Your task to perform on an android device: Open Amazon Image 0: 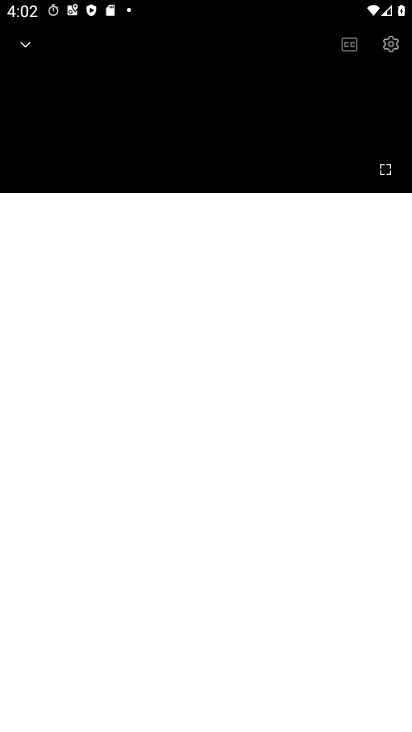
Step 0: click (128, 622)
Your task to perform on an android device: Open Amazon Image 1: 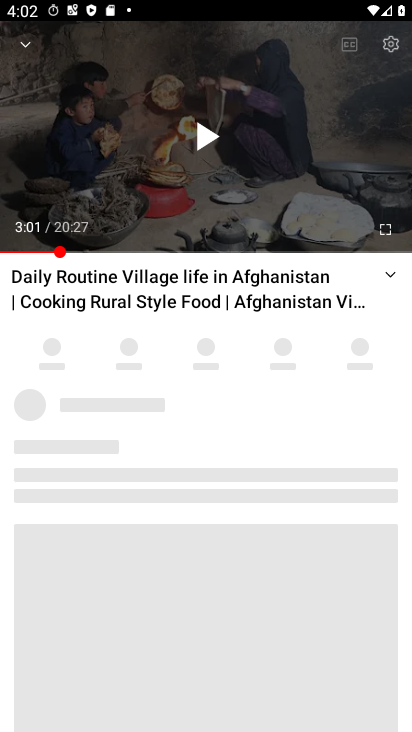
Step 1: press home button
Your task to perform on an android device: Open Amazon Image 2: 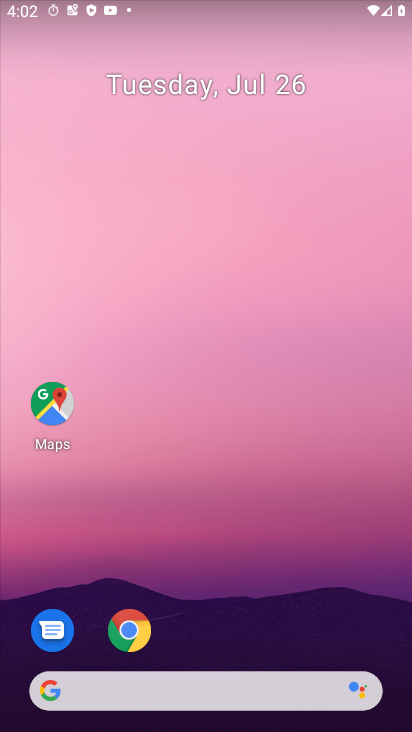
Step 2: click (137, 635)
Your task to perform on an android device: Open Amazon Image 3: 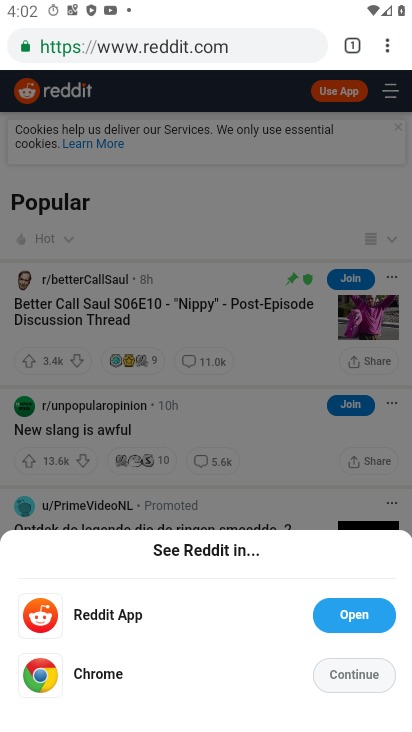
Step 3: click (351, 44)
Your task to perform on an android device: Open Amazon Image 4: 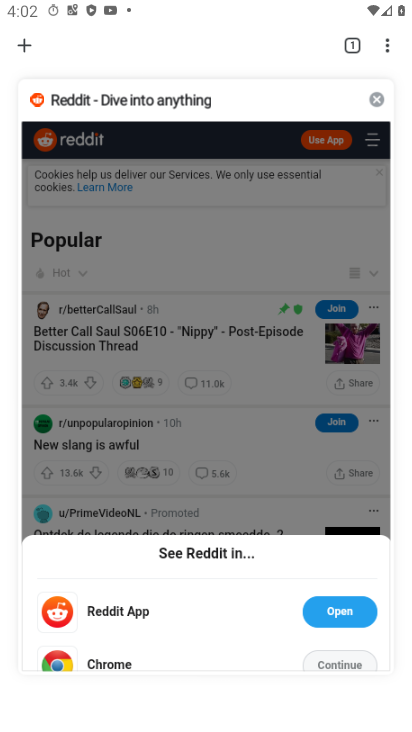
Step 4: click (28, 41)
Your task to perform on an android device: Open Amazon Image 5: 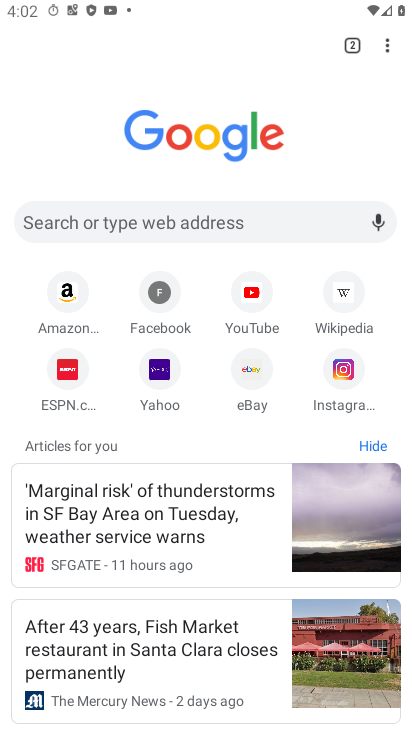
Step 5: click (71, 288)
Your task to perform on an android device: Open Amazon Image 6: 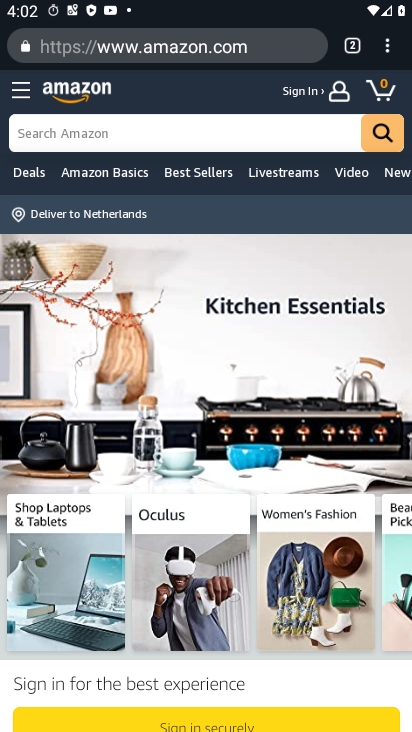
Step 6: task complete